Your task to perform on an android device: Open settings on Google Maps Image 0: 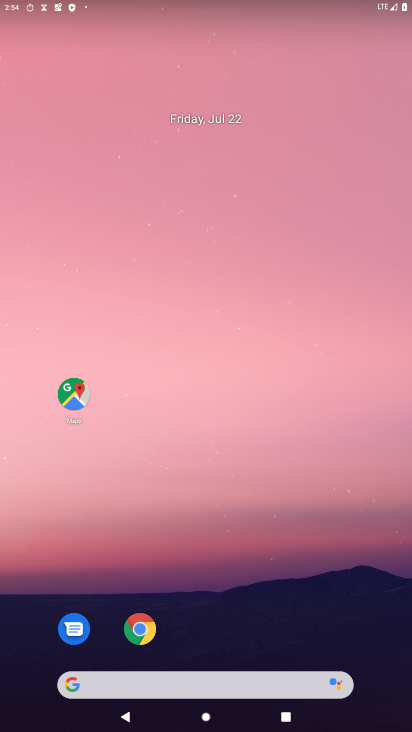
Step 0: drag from (290, 688) to (409, 595)
Your task to perform on an android device: Open settings on Google Maps Image 1: 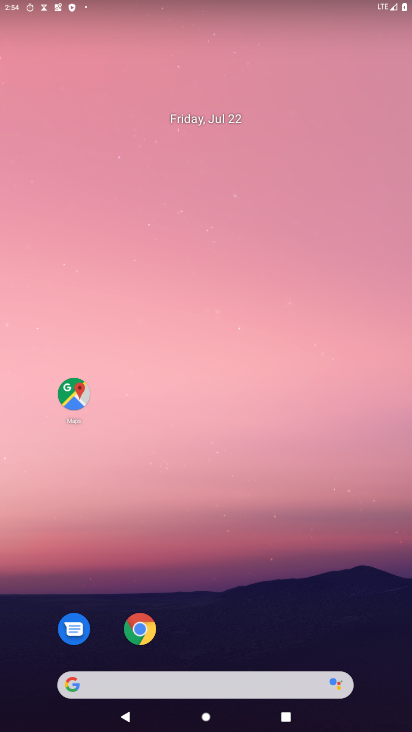
Step 1: drag from (135, 689) to (152, 39)
Your task to perform on an android device: Open settings on Google Maps Image 2: 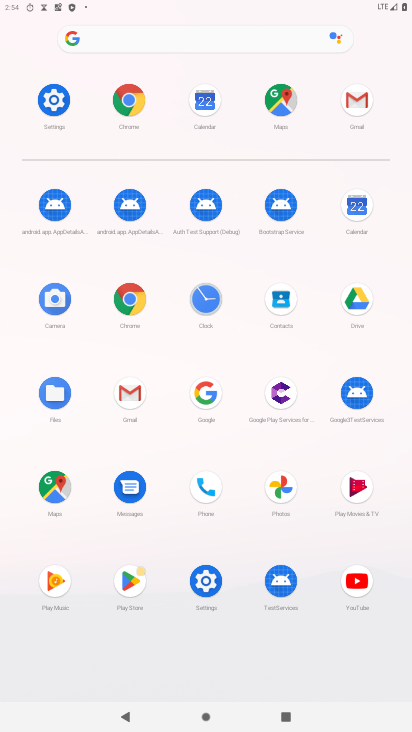
Step 2: click (50, 481)
Your task to perform on an android device: Open settings on Google Maps Image 3: 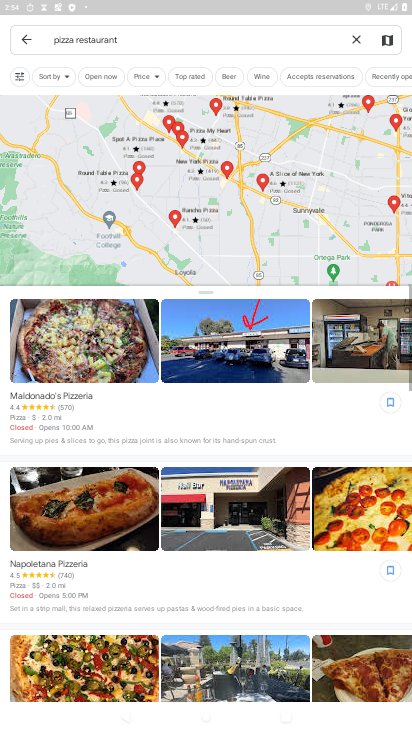
Step 3: press back button
Your task to perform on an android device: Open settings on Google Maps Image 4: 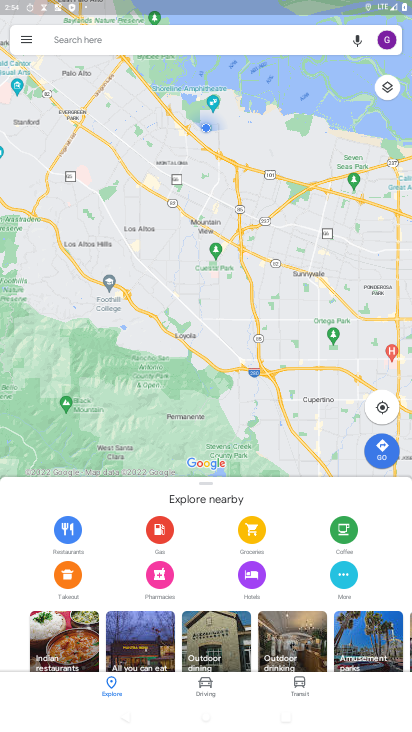
Step 4: click (30, 45)
Your task to perform on an android device: Open settings on Google Maps Image 5: 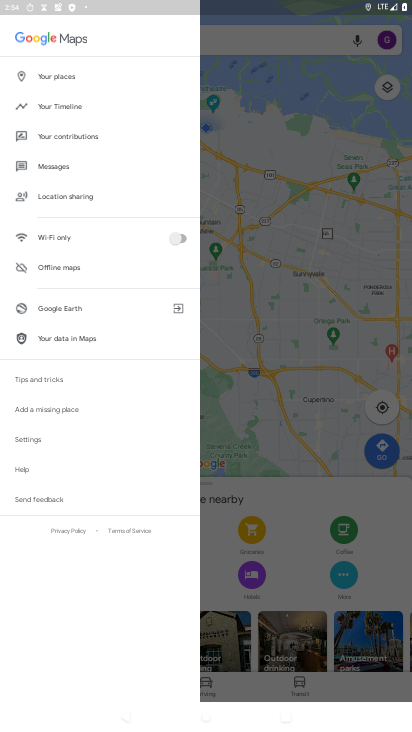
Step 5: click (46, 445)
Your task to perform on an android device: Open settings on Google Maps Image 6: 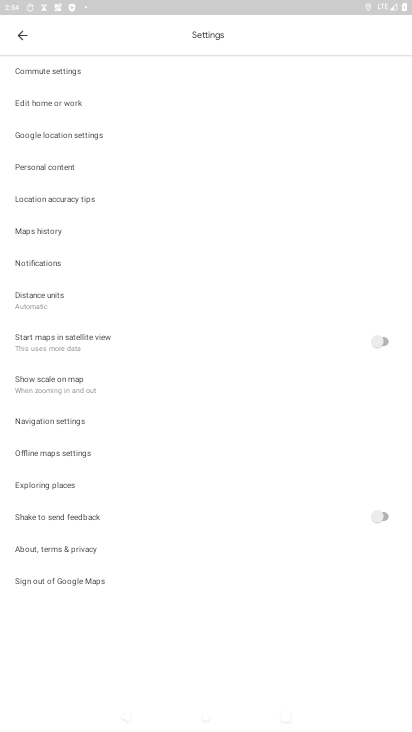
Step 6: task complete